Your task to perform on an android device: Open Chrome and go to settings Image 0: 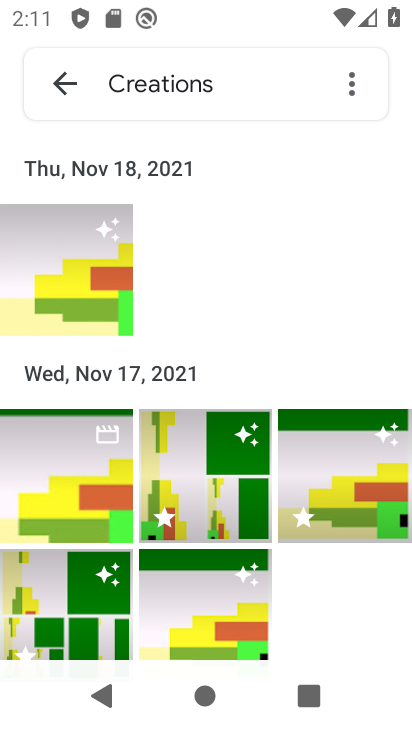
Step 0: press home button
Your task to perform on an android device: Open Chrome and go to settings Image 1: 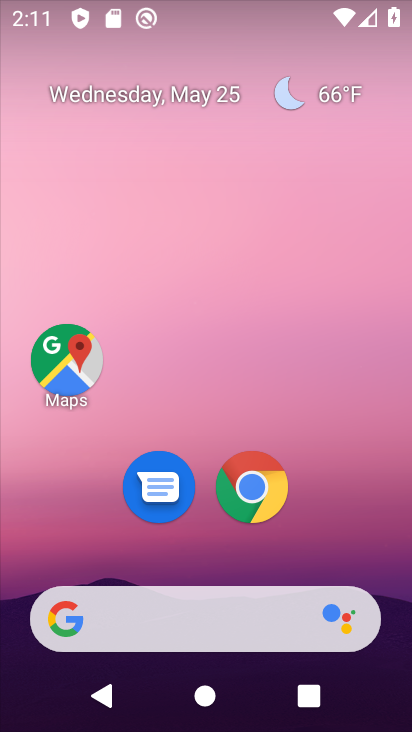
Step 1: click (246, 494)
Your task to perform on an android device: Open Chrome and go to settings Image 2: 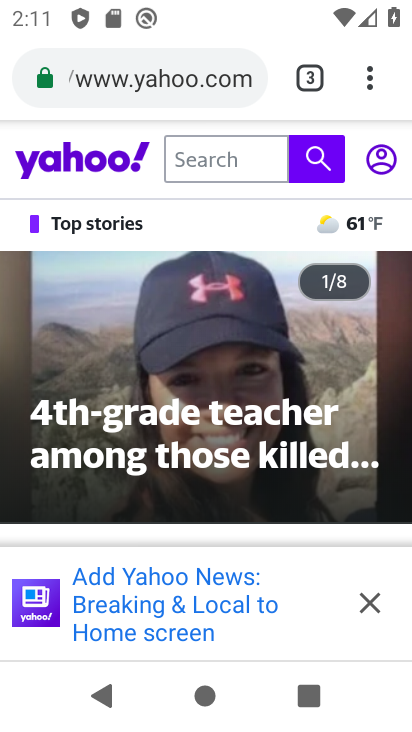
Step 2: click (370, 84)
Your task to perform on an android device: Open Chrome and go to settings Image 3: 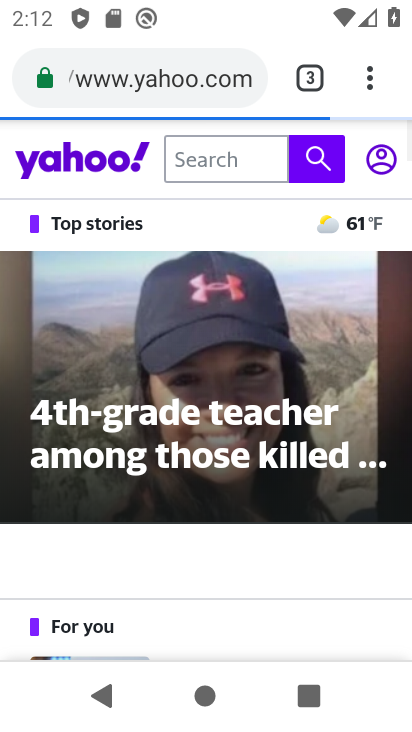
Step 3: click (375, 77)
Your task to perform on an android device: Open Chrome and go to settings Image 4: 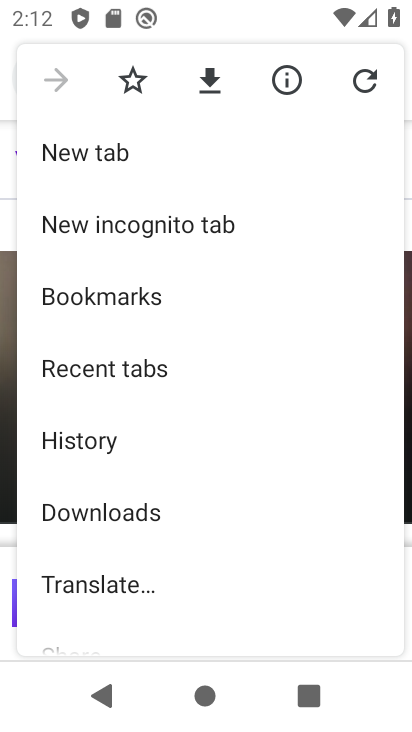
Step 4: drag from (129, 549) to (76, 164)
Your task to perform on an android device: Open Chrome and go to settings Image 5: 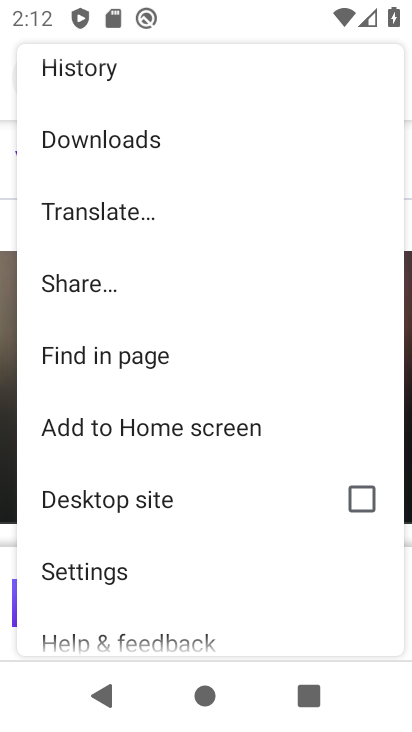
Step 5: click (92, 570)
Your task to perform on an android device: Open Chrome and go to settings Image 6: 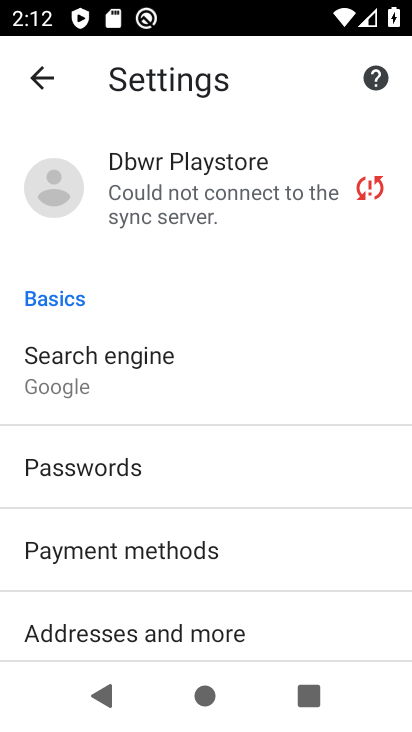
Step 6: task complete